Your task to perform on an android device: set default search engine in the chrome app Image 0: 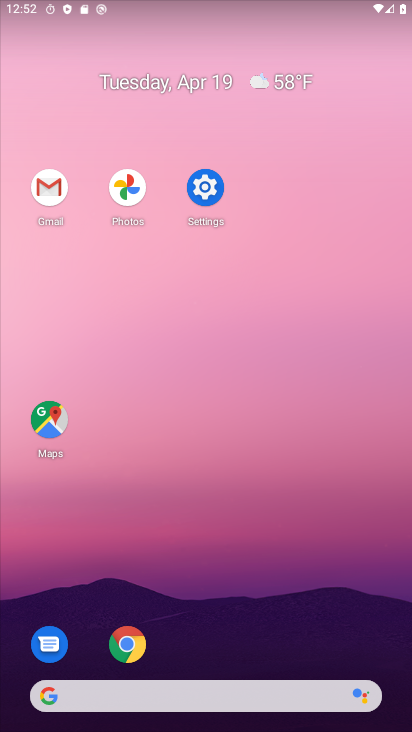
Step 0: click (134, 644)
Your task to perform on an android device: set default search engine in the chrome app Image 1: 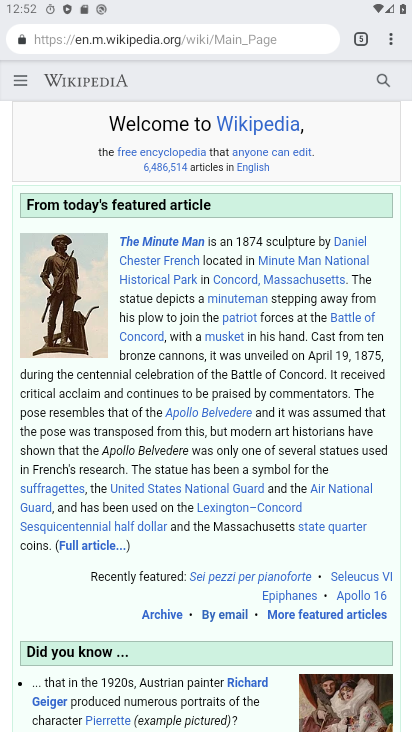
Step 1: click (388, 37)
Your task to perform on an android device: set default search engine in the chrome app Image 2: 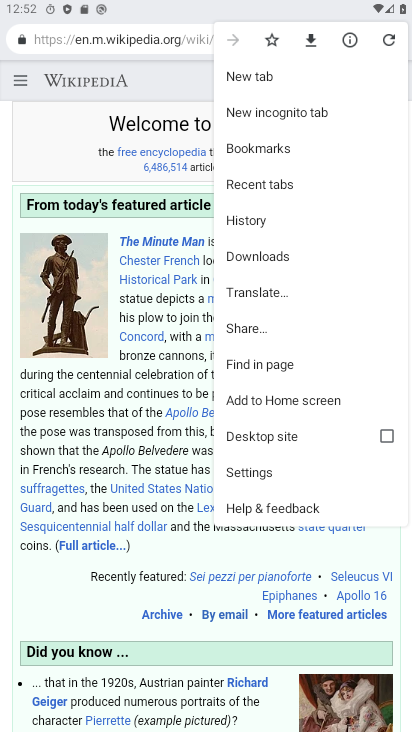
Step 2: click (283, 468)
Your task to perform on an android device: set default search engine in the chrome app Image 3: 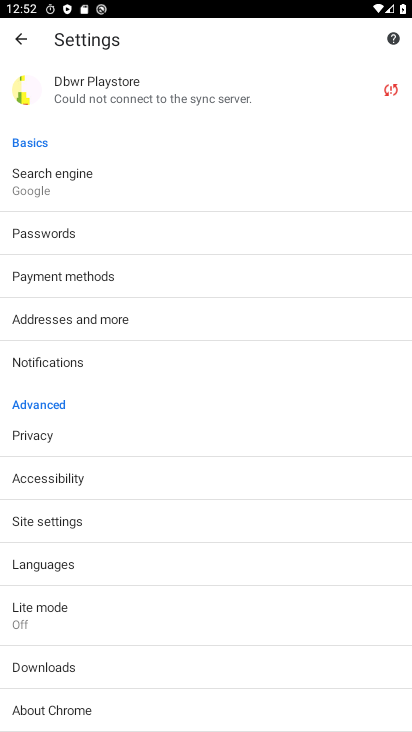
Step 3: click (189, 196)
Your task to perform on an android device: set default search engine in the chrome app Image 4: 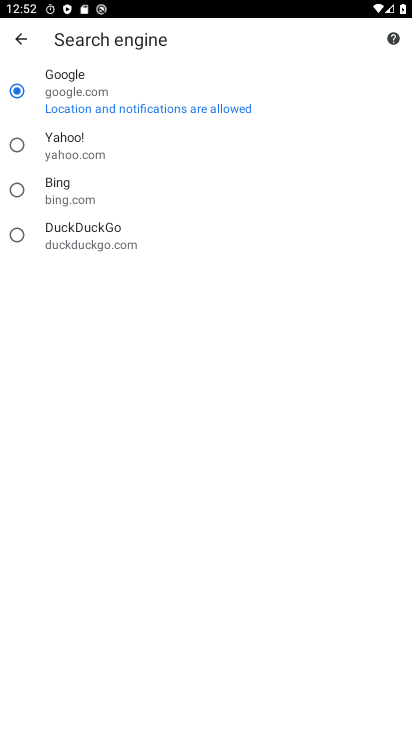
Step 4: task complete